Your task to perform on an android device: turn off translation in the chrome app Image 0: 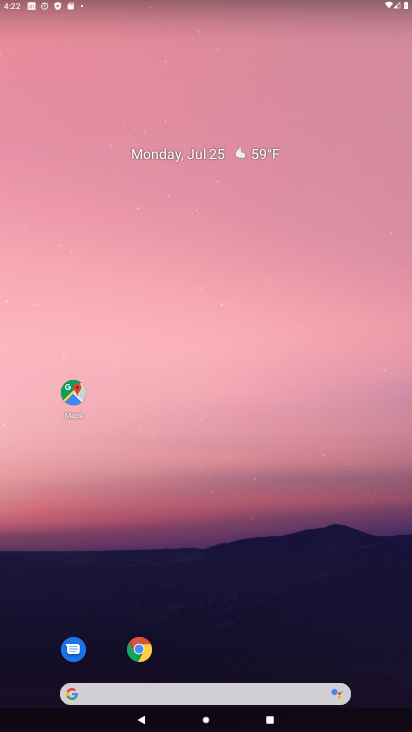
Step 0: drag from (281, 636) to (221, 242)
Your task to perform on an android device: turn off translation in the chrome app Image 1: 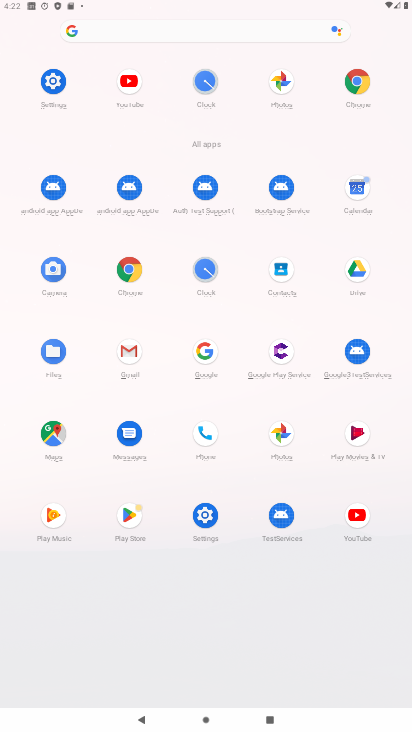
Step 1: click (361, 90)
Your task to perform on an android device: turn off translation in the chrome app Image 2: 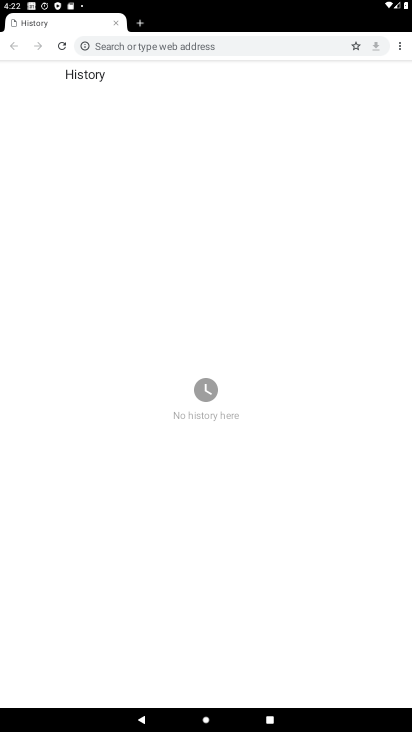
Step 2: click (398, 45)
Your task to perform on an android device: turn off translation in the chrome app Image 3: 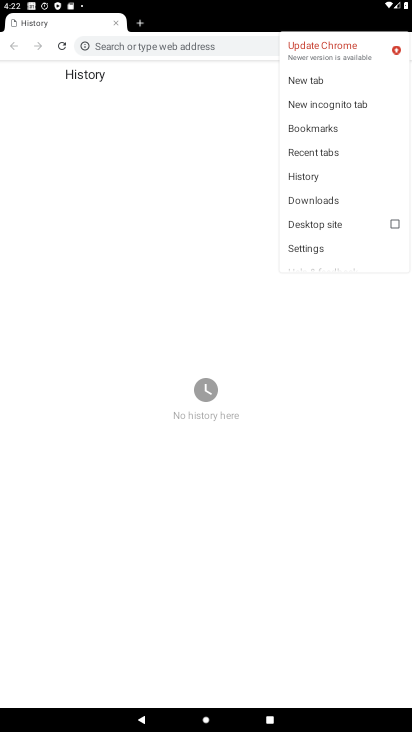
Step 3: click (329, 245)
Your task to perform on an android device: turn off translation in the chrome app Image 4: 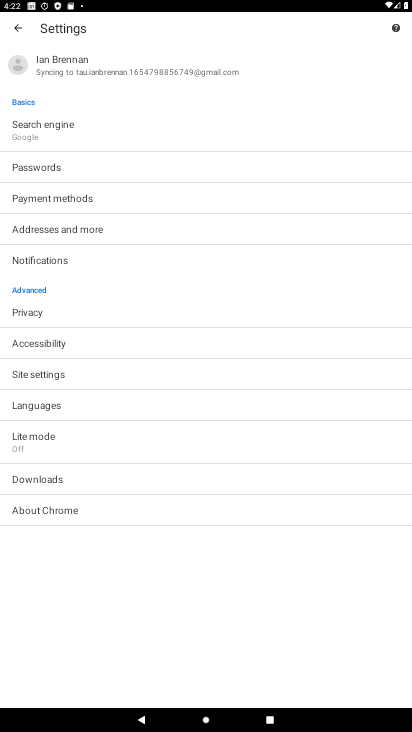
Step 4: click (106, 411)
Your task to perform on an android device: turn off translation in the chrome app Image 5: 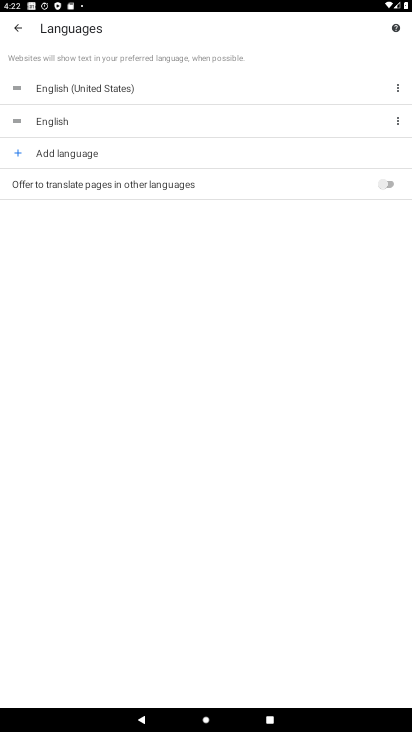
Step 5: task complete